Your task to perform on an android device: Add jbl flip 4 to the cart on newegg.com, then select checkout. Image 0: 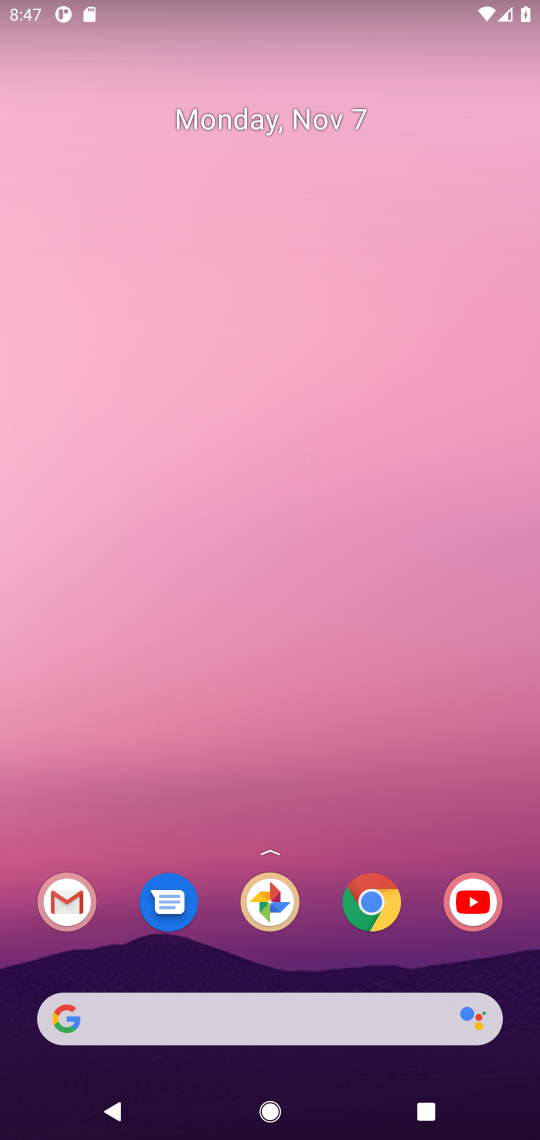
Step 0: click (380, 905)
Your task to perform on an android device: Add jbl flip 4 to the cart on newegg.com, then select checkout. Image 1: 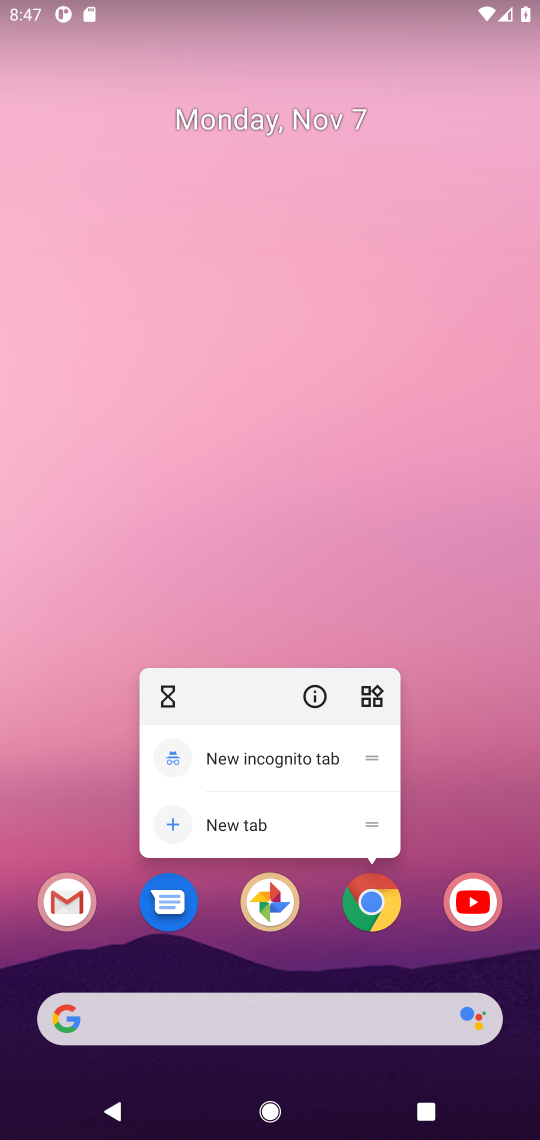
Step 1: click (375, 911)
Your task to perform on an android device: Add jbl flip 4 to the cart on newegg.com, then select checkout. Image 2: 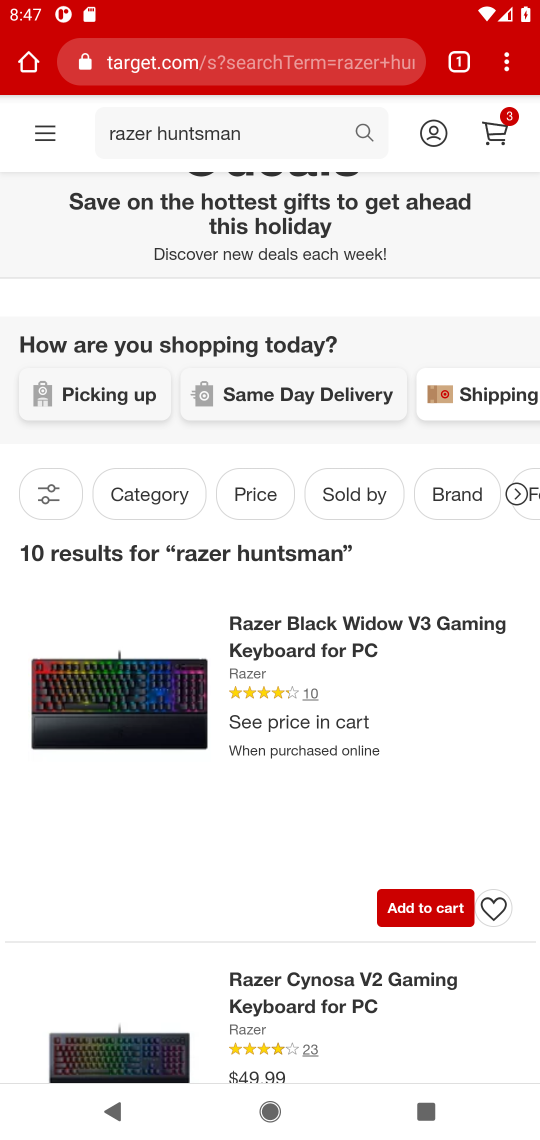
Step 2: click (224, 59)
Your task to perform on an android device: Add jbl flip 4 to the cart on newegg.com, then select checkout. Image 3: 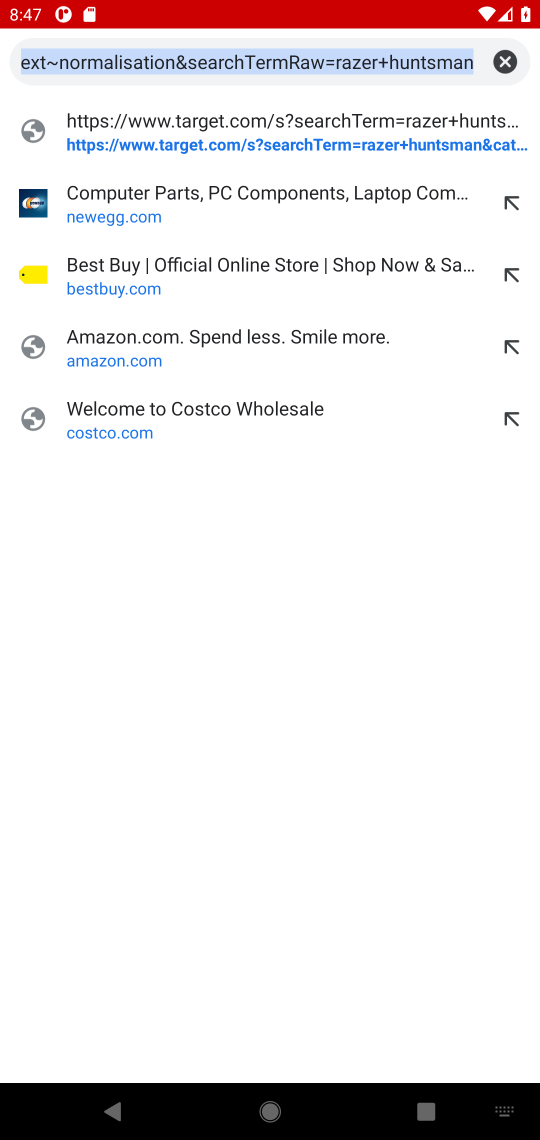
Step 3: click (103, 206)
Your task to perform on an android device: Add jbl flip 4 to the cart on newegg.com, then select checkout. Image 4: 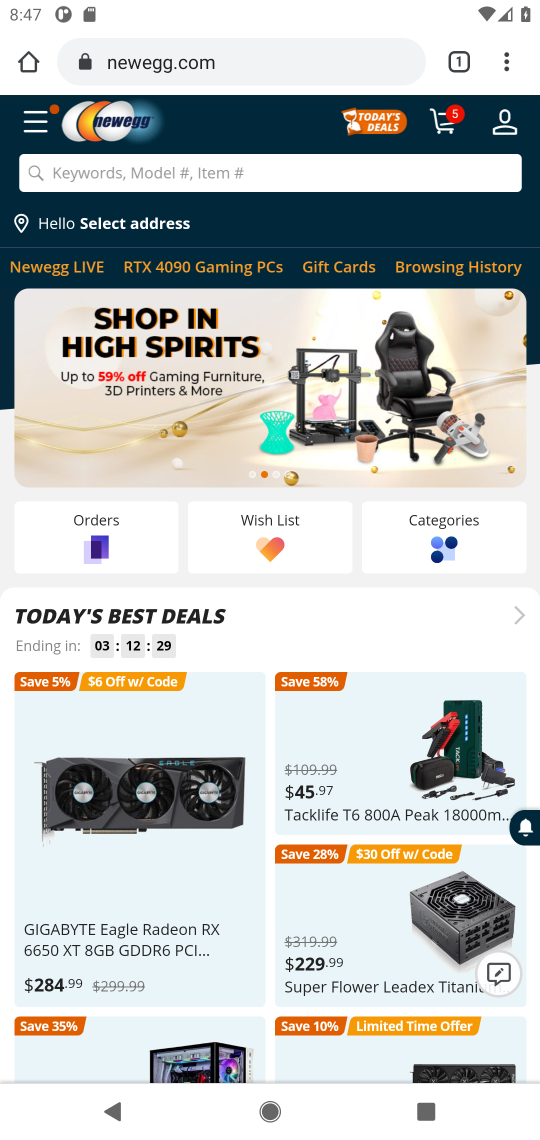
Step 4: click (95, 167)
Your task to perform on an android device: Add jbl flip 4 to the cart on newegg.com, then select checkout. Image 5: 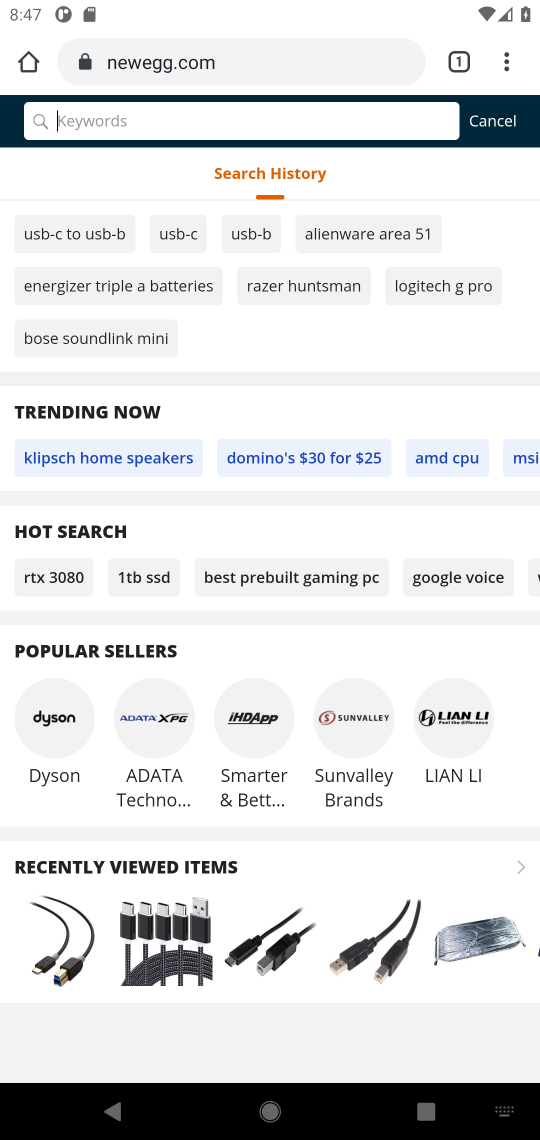
Step 5: type "jbl flip 4"
Your task to perform on an android device: Add jbl flip 4 to the cart on newegg.com, then select checkout. Image 6: 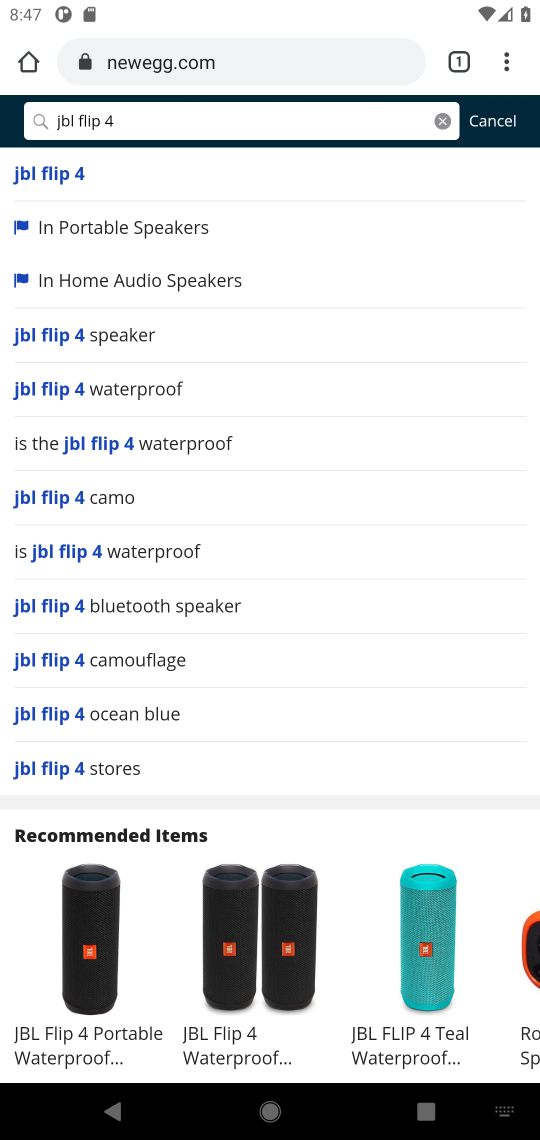
Step 6: click (67, 181)
Your task to perform on an android device: Add jbl flip 4 to the cart on newegg.com, then select checkout. Image 7: 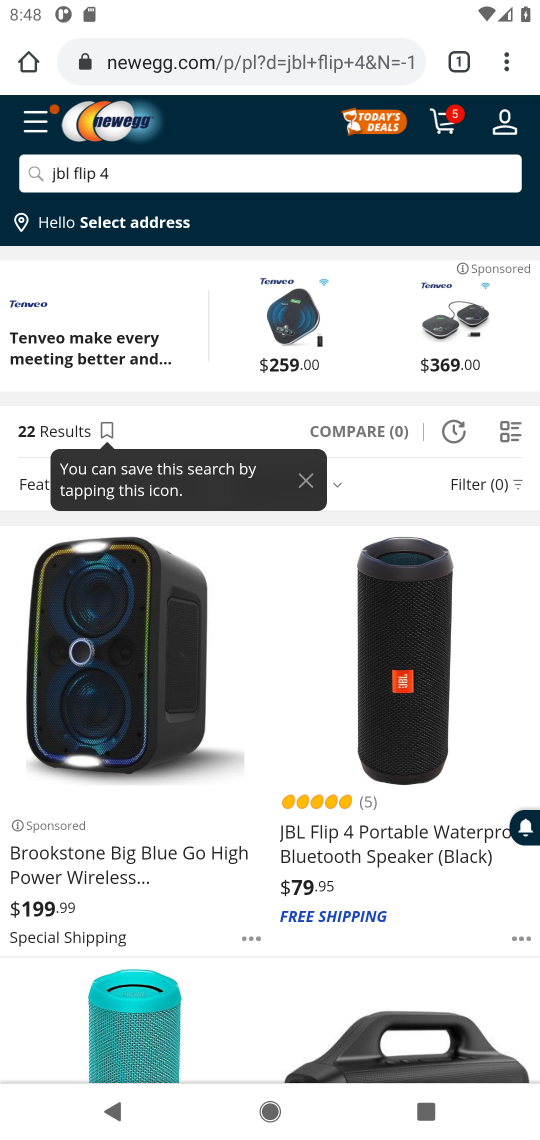
Step 7: click (372, 849)
Your task to perform on an android device: Add jbl flip 4 to the cart on newegg.com, then select checkout. Image 8: 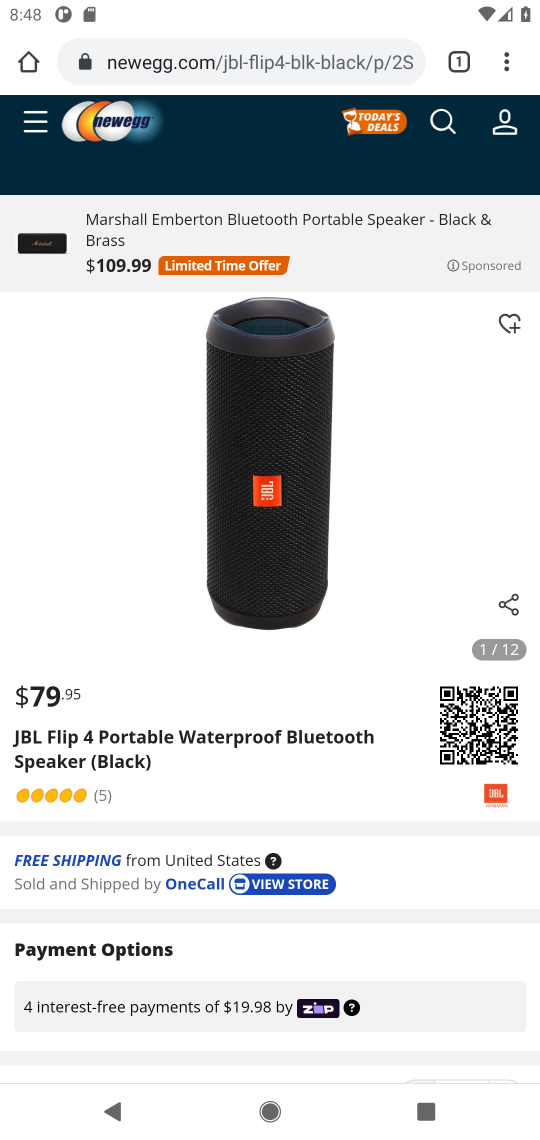
Step 8: drag from (347, 831) to (315, 362)
Your task to perform on an android device: Add jbl flip 4 to the cart on newegg.com, then select checkout. Image 9: 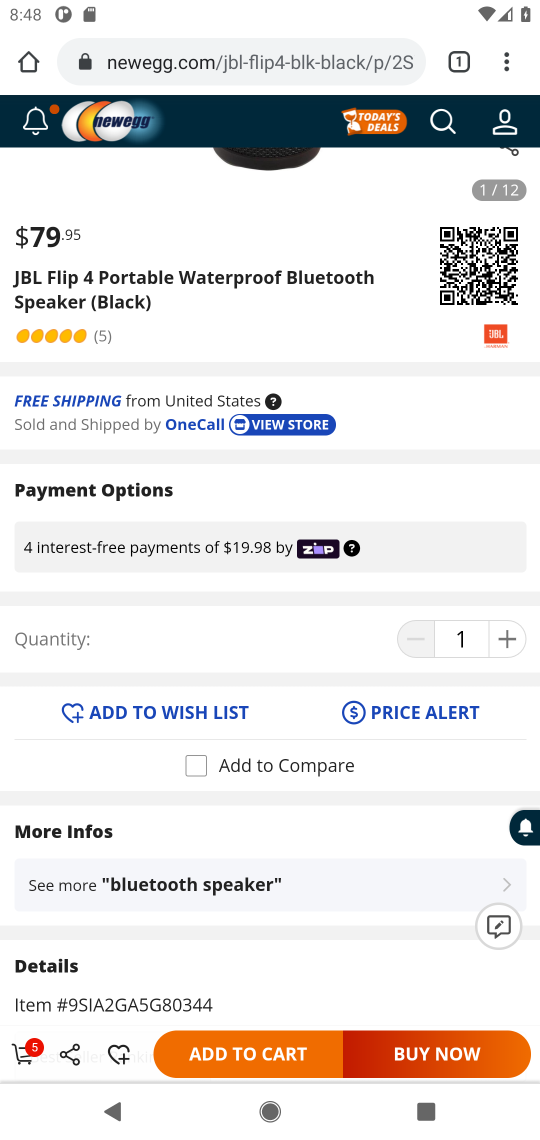
Step 9: click (252, 1060)
Your task to perform on an android device: Add jbl flip 4 to the cart on newegg.com, then select checkout. Image 10: 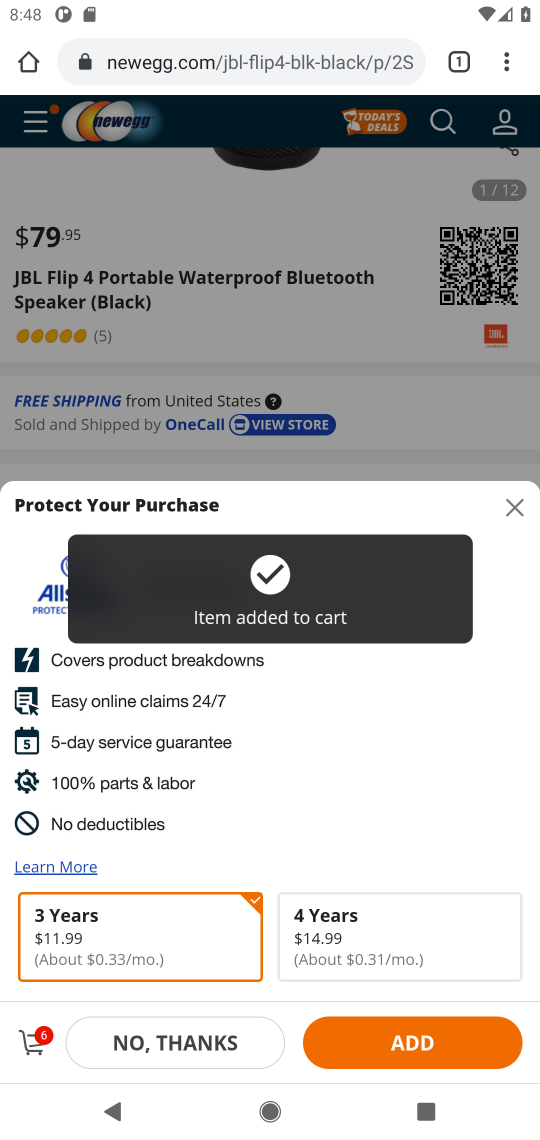
Step 10: click (25, 1056)
Your task to perform on an android device: Add jbl flip 4 to the cart on newegg.com, then select checkout. Image 11: 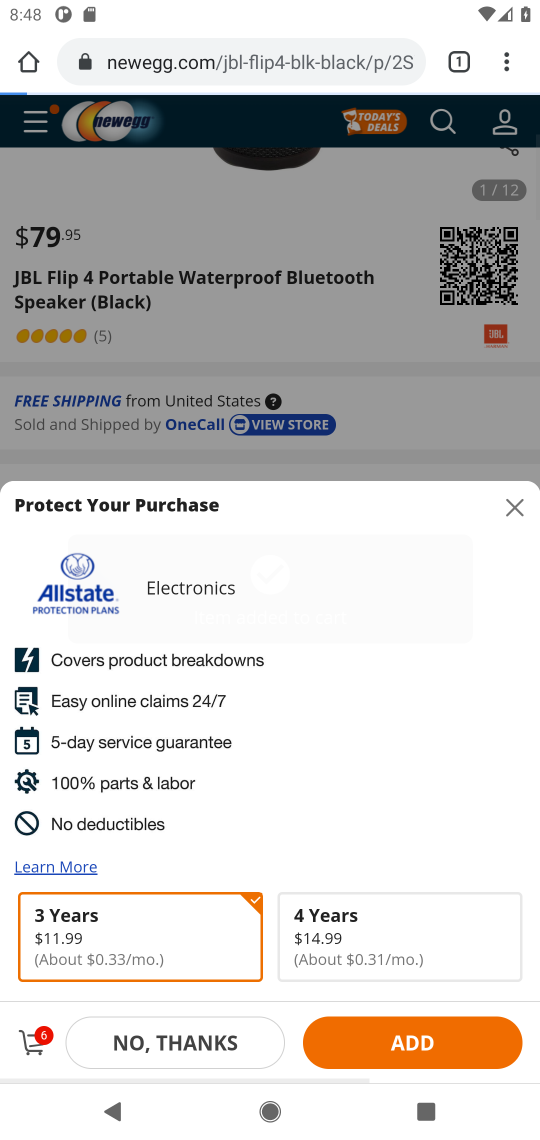
Step 11: click (29, 1047)
Your task to perform on an android device: Add jbl flip 4 to the cart on newegg.com, then select checkout. Image 12: 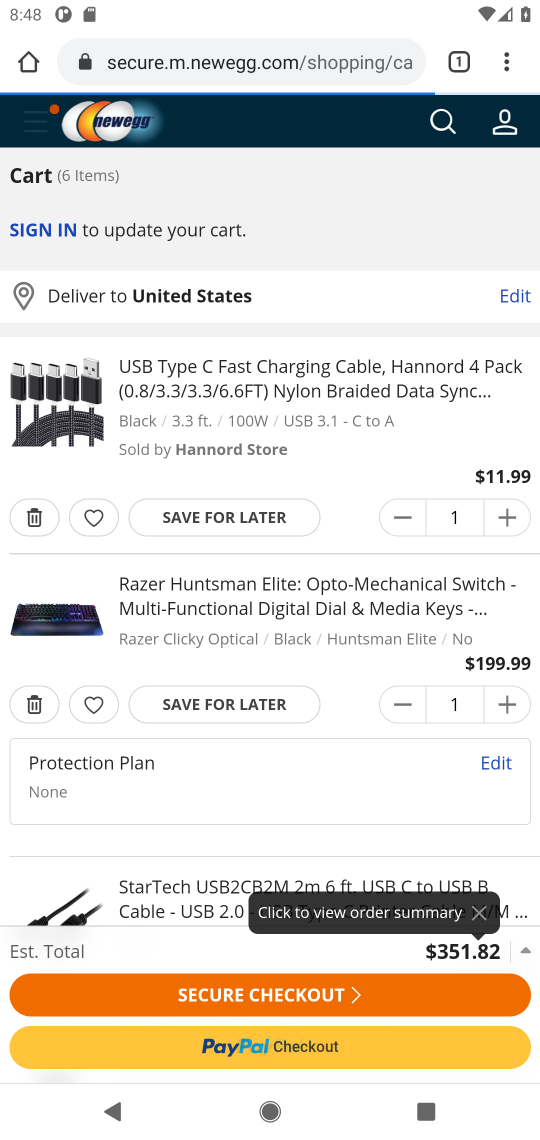
Step 12: click (214, 982)
Your task to perform on an android device: Add jbl flip 4 to the cart on newegg.com, then select checkout. Image 13: 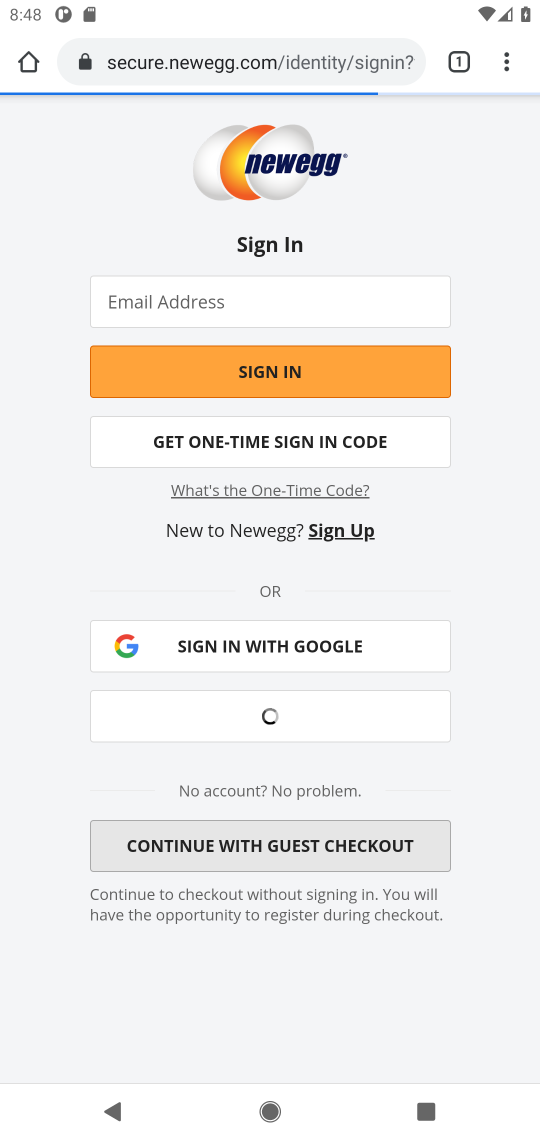
Step 13: click (212, 990)
Your task to perform on an android device: Add jbl flip 4 to the cart on newegg.com, then select checkout. Image 14: 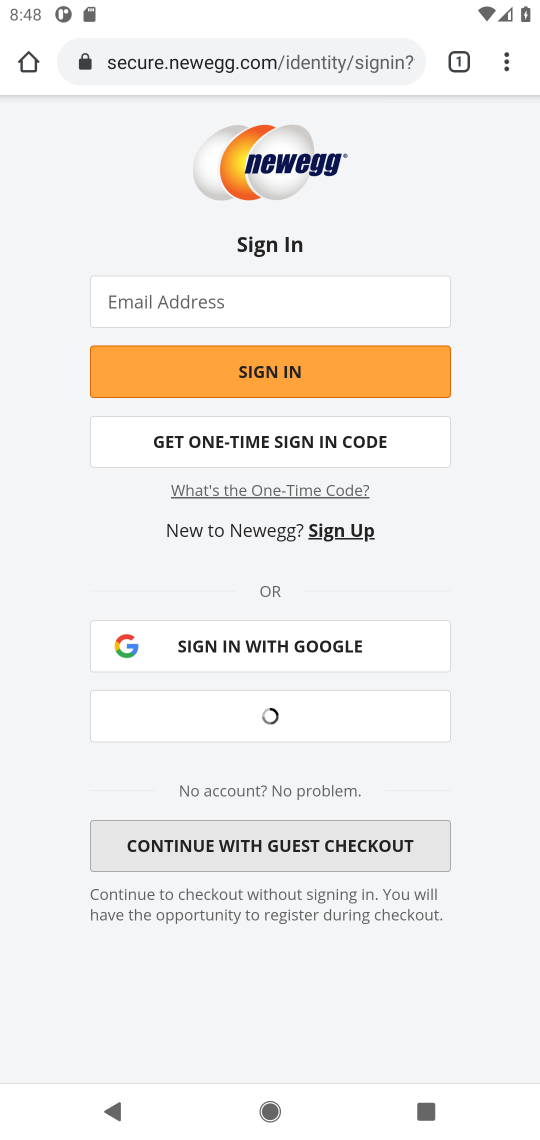
Step 14: task complete